Your task to perform on an android device: open the mobile data screen to see how much data has been used Image 0: 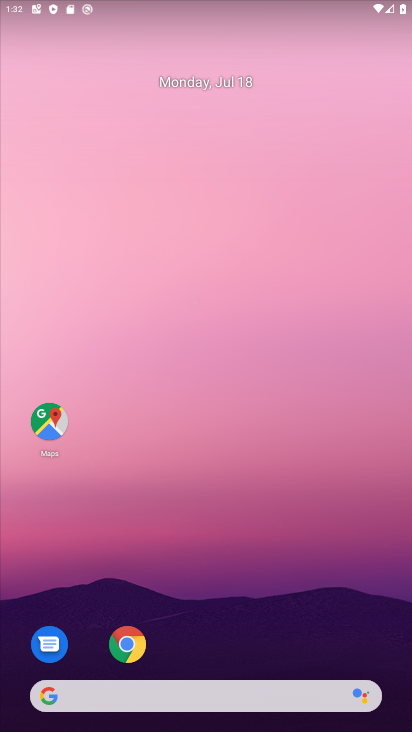
Step 0: drag from (308, 608) to (307, 307)
Your task to perform on an android device: open the mobile data screen to see how much data has been used Image 1: 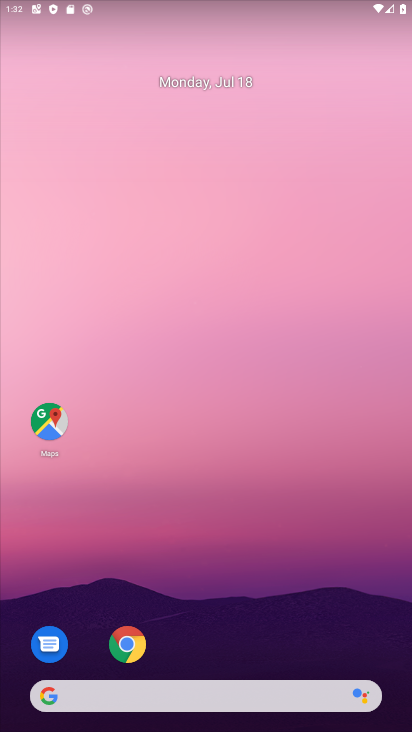
Step 1: drag from (289, 532) to (285, 42)
Your task to perform on an android device: open the mobile data screen to see how much data has been used Image 2: 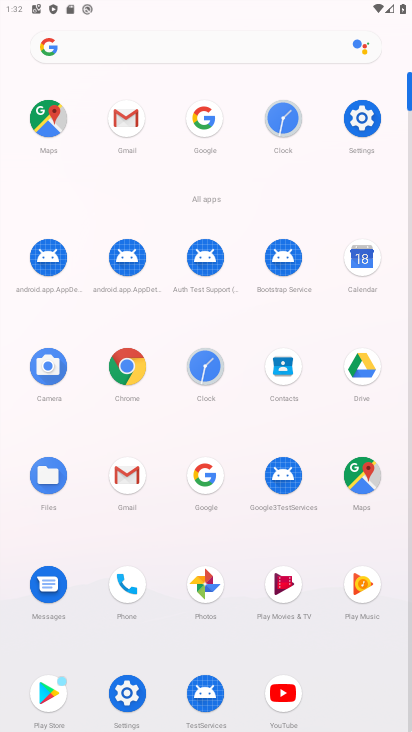
Step 2: click (360, 128)
Your task to perform on an android device: open the mobile data screen to see how much data has been used Image 3: 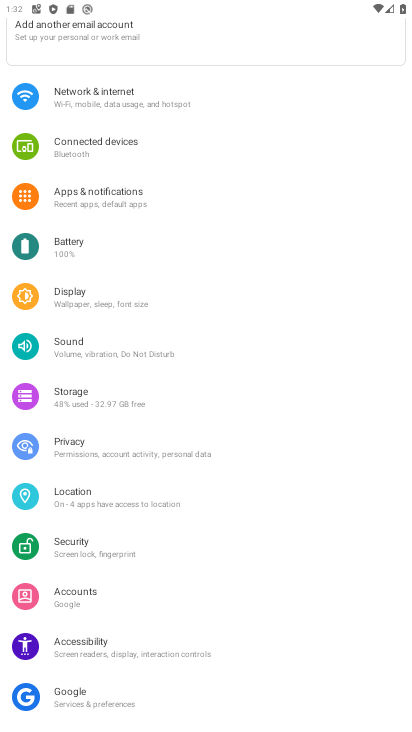
Step 3: click (143, 88)
Your task to perform on an android device: open the mobile data screen to see how much data has been used Image 4: 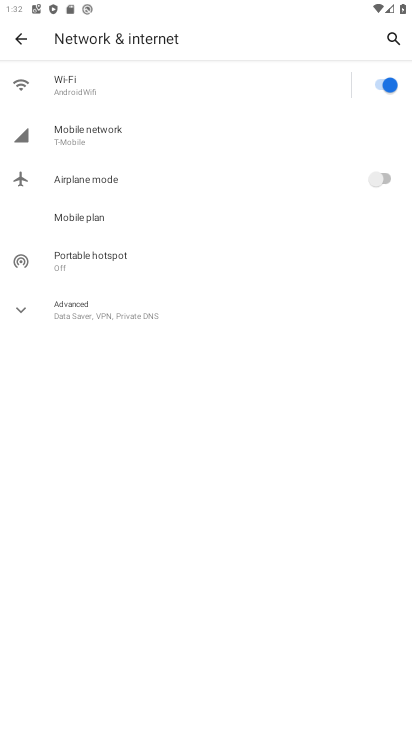
Step 4: click (79, 136)
Your task to perform on an android device: open the mobile data screen to see how much data has been used Image 5: 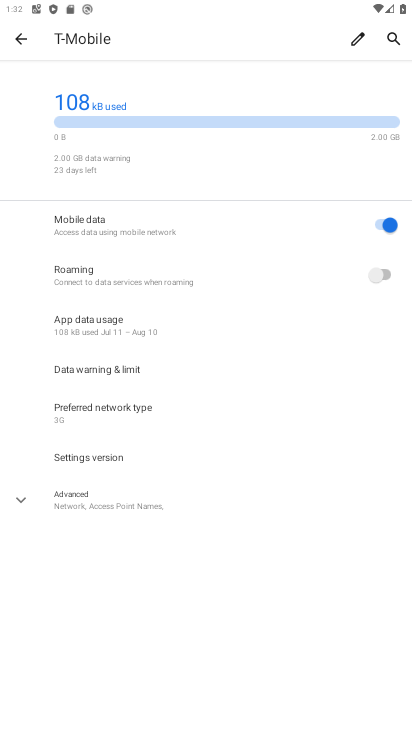
Step 5: click (135, 334)
Your task to perform on an android device: open the mobile data screen to see how much data has been used Image 6: 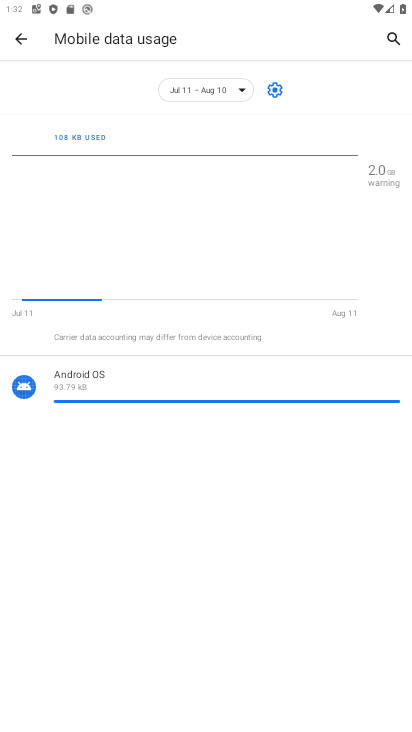
Step 6: task complete